Your task to perform on an android device: make emails show in primary in the gmail app Image 0: 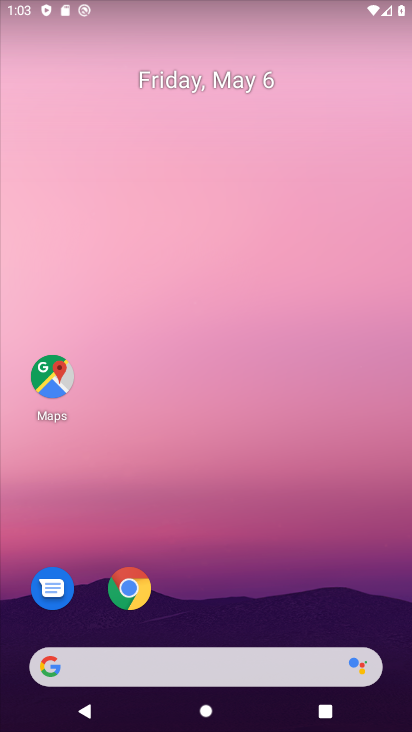
Step 0: drag from (299, 607) to (225, 72)
Your task to perform on an android device: make emails show in primary in the gmail app Image 1: 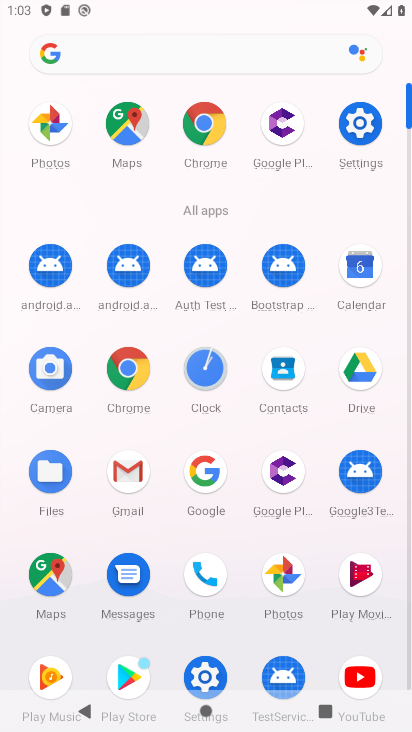
Step 1: click (128, 464)
Your task to perform on an android device: make emails show in primary in the gmail app Image 2: 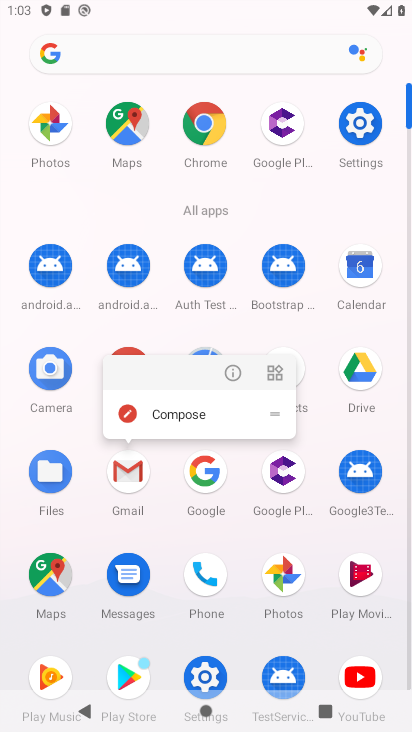
Step 2: click (134, 476)
Your task to perform on an android device: make emails show in primary in the gmail app Image 3: 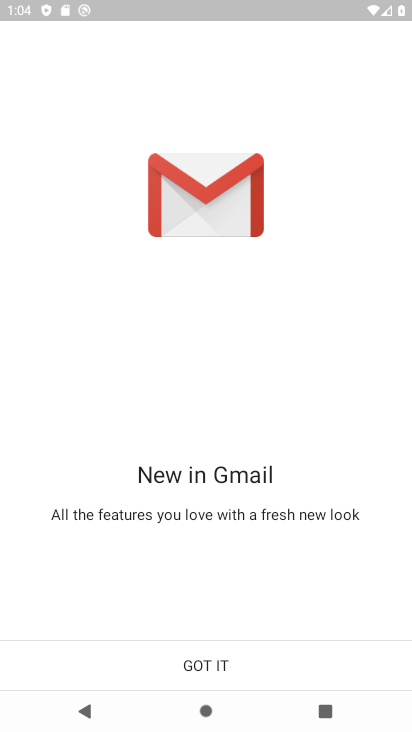
Step 3: click (213, 659)
Your task to perform on an android device: make emails show in primary in the gmail app Image 4: 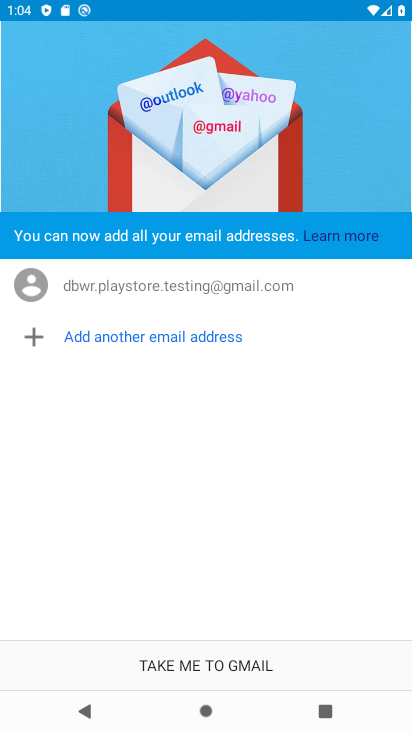
Step 4: click (211, 653)
Your task to perform on an android device: make emails show in primary in the gmail app Image 5: 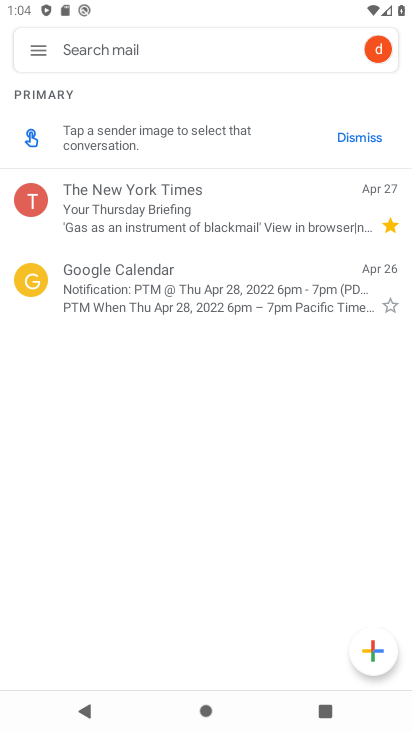
Step 5: click (31, 53)
Your task to perform on an android device: make emails show in primary in the gmail app Image 6: 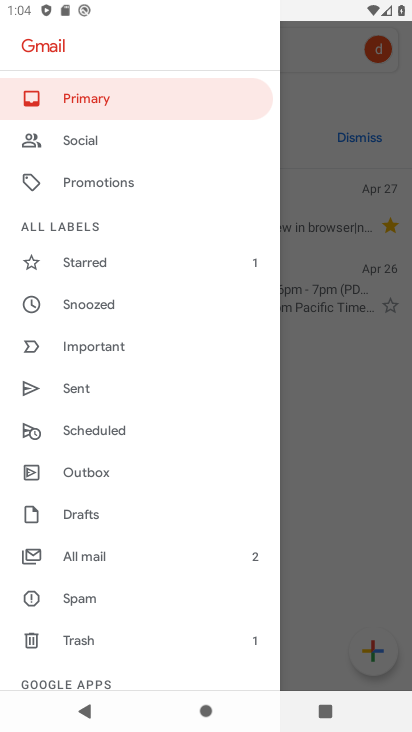
Step 6: click (132, 98)
Your task to perform on an android device: make emails show in primary in the gmail app Image 7: 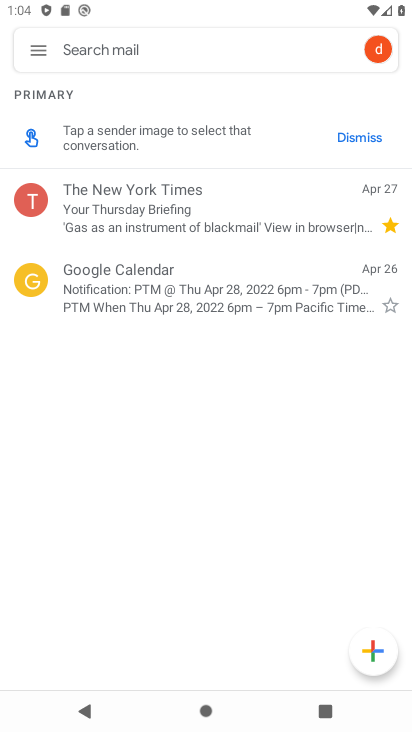
Step 7: task complete